Your task to perform on an android device: Show me recent news Image 0: 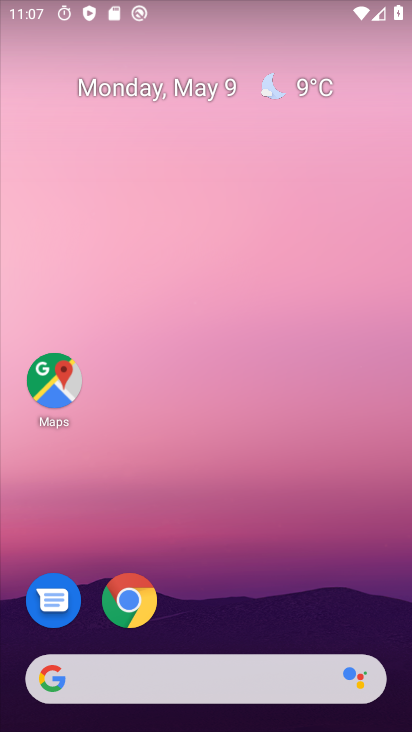
Step 0: drag from (8, 281) to (411, 249)
Your task to perform on an android device: Show me recent news Image 1: 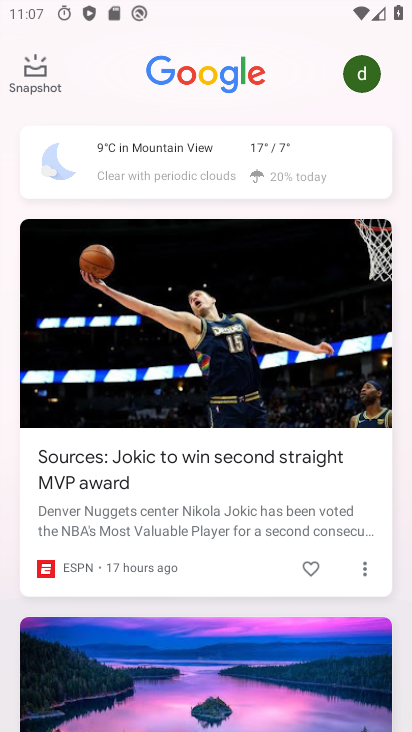
Step 1: task complete